Your task to perform on an android device: When is my next appointment? Image 0: 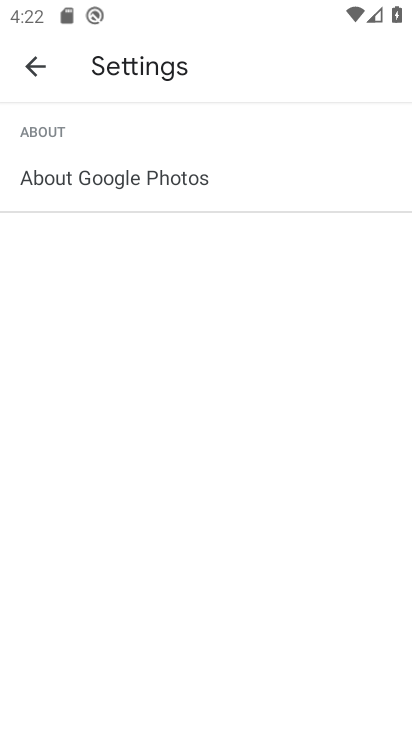
Step 0: press home button
Your task to perform on an android device: When is my next appointment? Image 1: 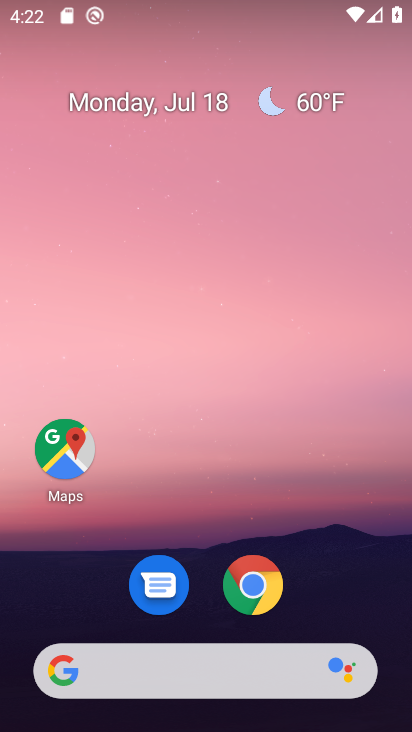
Step 1: drag from (359, 566) to (381, 36)
Your task to perform on an android device: When is my next appointment? Image 2: 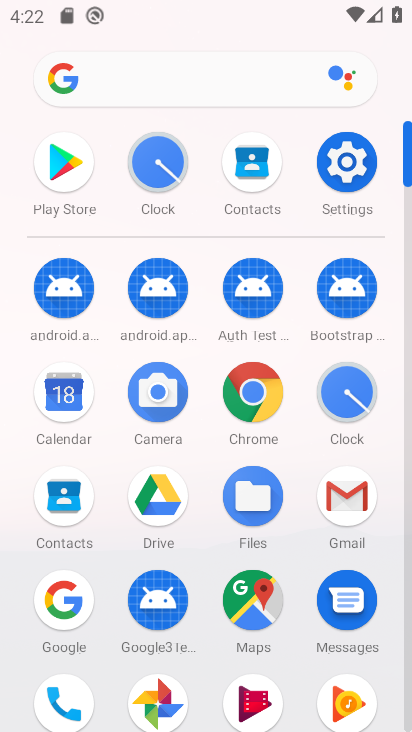
Step 2: click (69, 395)
Your task to perform on an android device: When is my next appointment? Image 3: 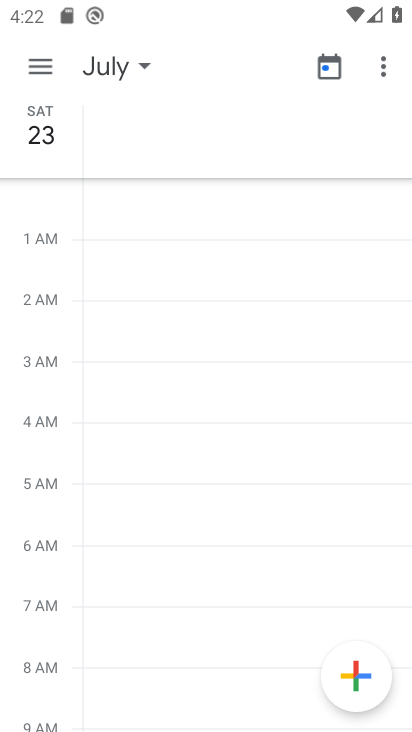
Step 3: drag from (192, 283) to (194, 646)
Your task to perform on an android device: When is my next appointment? Image 4: 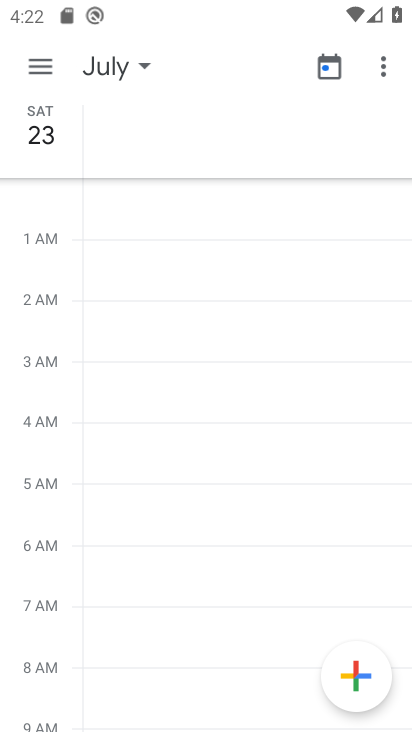
Step 4: click (38, 62)
Your task to perform on an android device: When is my next appointment? Image 5: 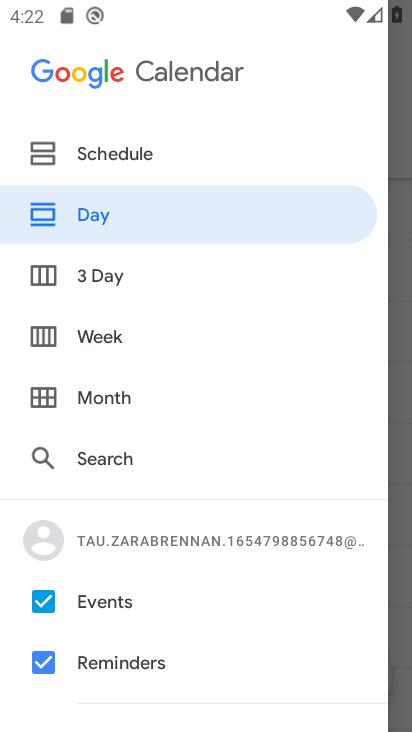
Step 5: click (41, 327)
Your task to perform on an android device: When is my next appointment? Image 6: 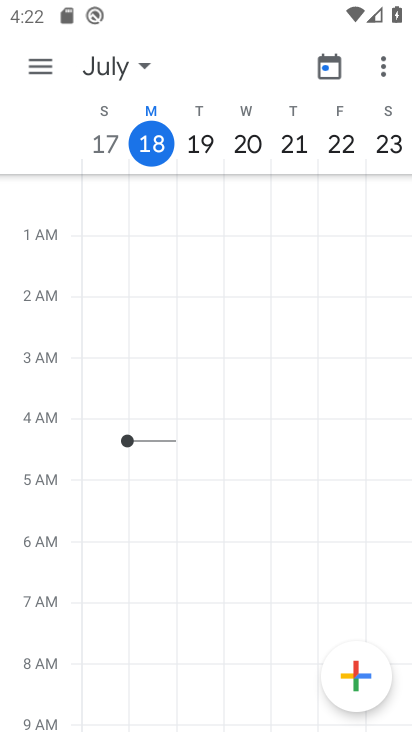
Step 6: drag from (117, 407) to (223, 370)
Your task to perform on an android device: When is my next appointment? Image 7: 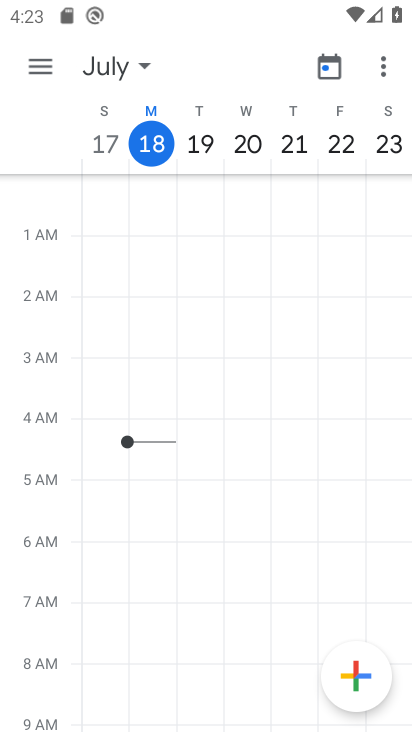
Step 7: click (160, 144)
Your task to perform on an android device: When is my next appointment? Image 8: 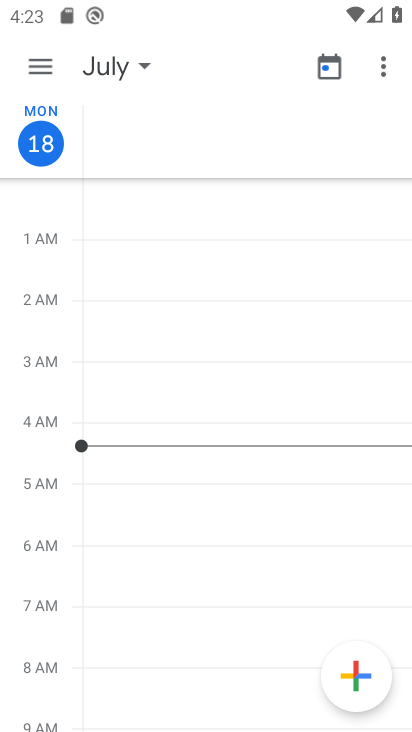
Step 8: drag from (231, 563) to (292, 131)
Your task to perform on an android device: When is my next appointment? Image 9: 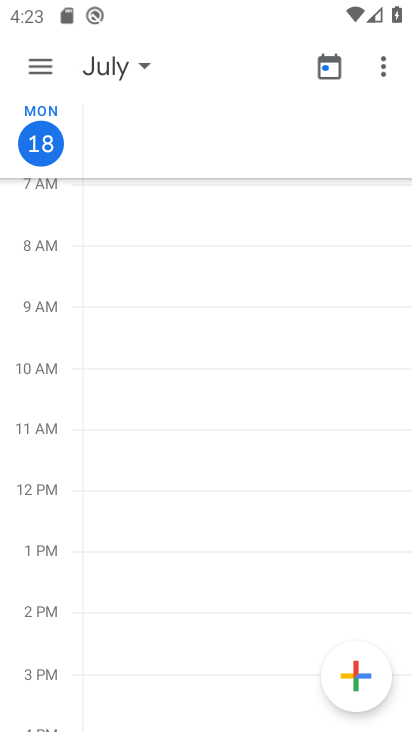
Step 9: click (46, 135)
Your task to perform on an android device: When is my next appointment? Image 10: 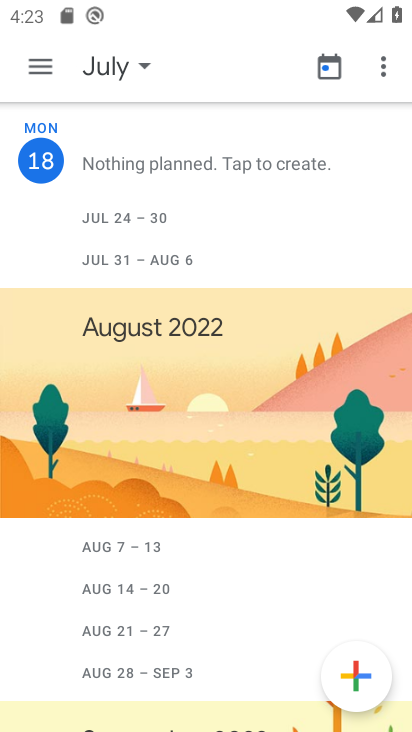
Step 10: task complete